Your task to perform on an android device: What is the recent news? Image 0: 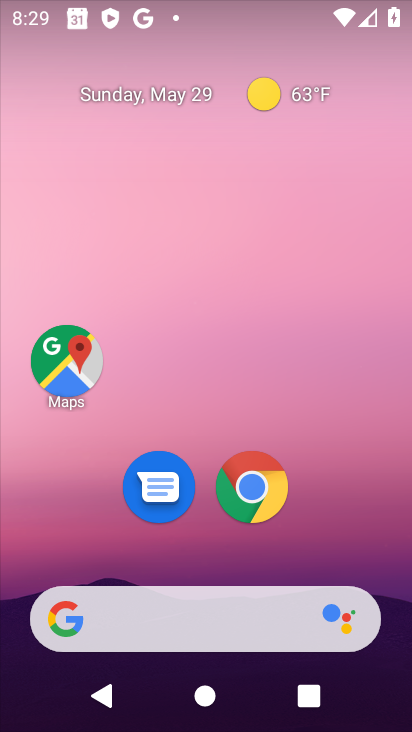
Step 0: drag from (294, 534) to (279, 155)
Your task to perform on an android device: What is the recent news? Image 1: 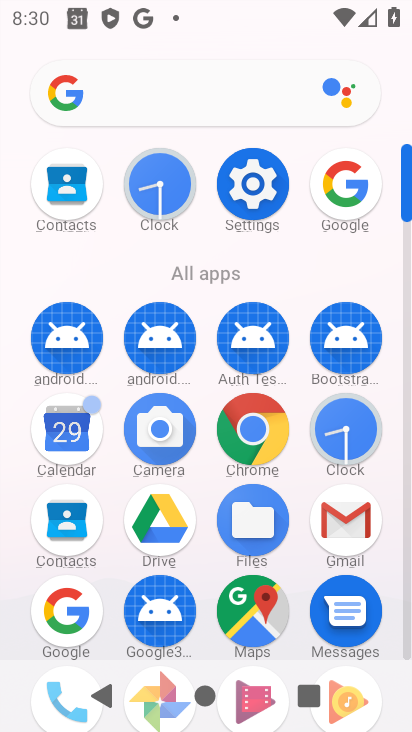
Step 1: click (340, 182)
Your task to perform on an android device: What is the recent news? Image 2: 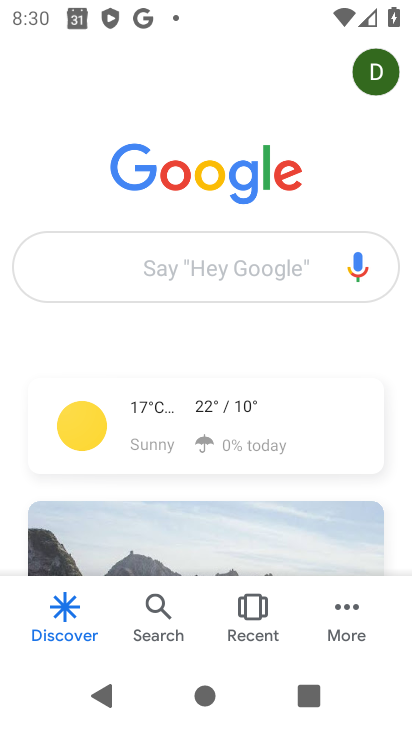
Step 2: click (204, 285)
Your task to perform on an android device: What is the recent news? Image 3: 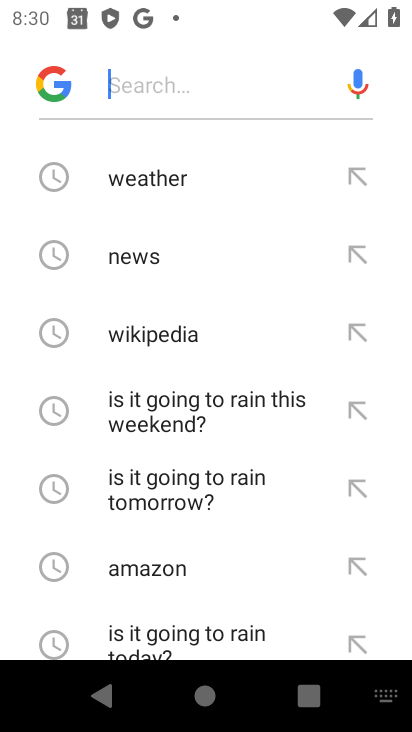
Step 3: type "recent news"
Your task to perform on an android device: What is the recent news? Image 4: 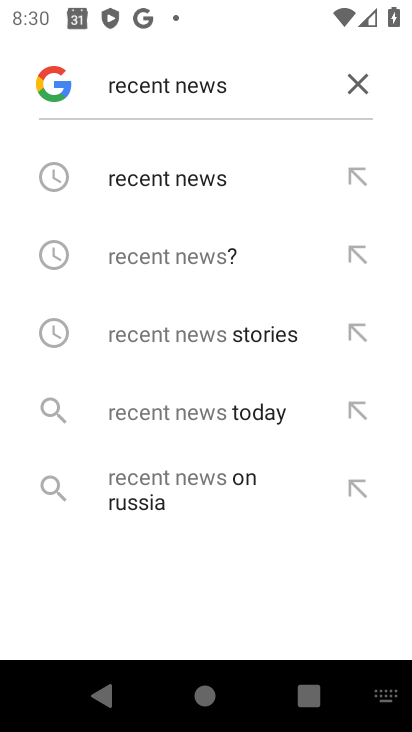
Step 4: click (192, 179)
Your task to perform on an android device: What is the recent news? Image 5: 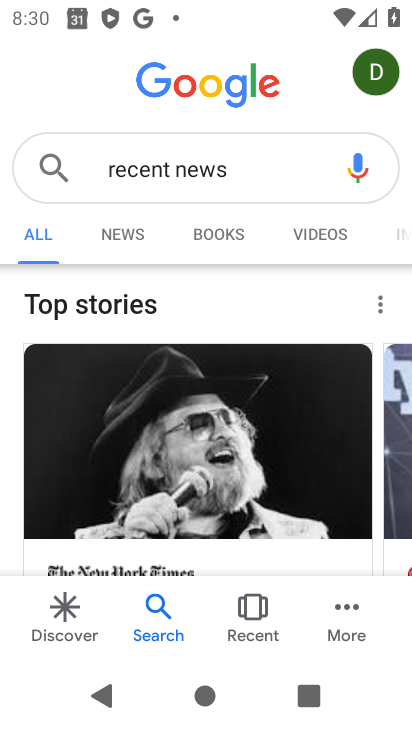
Step 5: task complete